Your task to perform on an android device: find which apps use the phone's location Image 0: 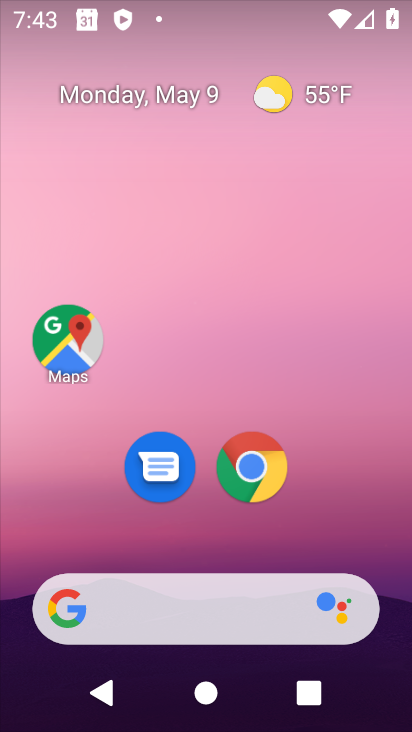
Step 0: drag from (388, 549) to (389, 6)
Your task to perform on an android device: find which apps use the phone's location Image 1: 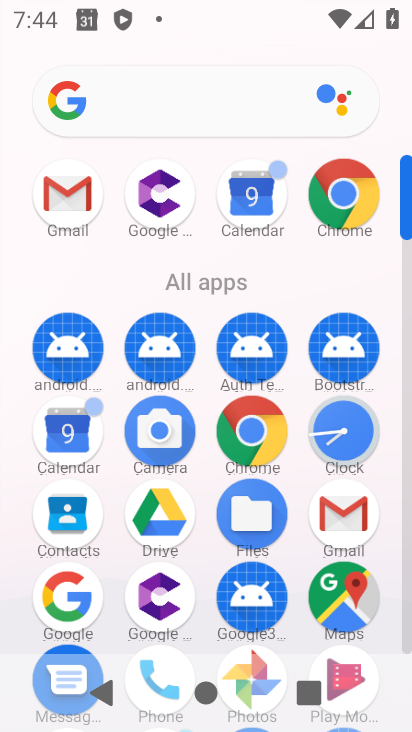
Step 1: click (405, 501)
Your task to perform on an android device: find which apps use the phone's location Image 2: 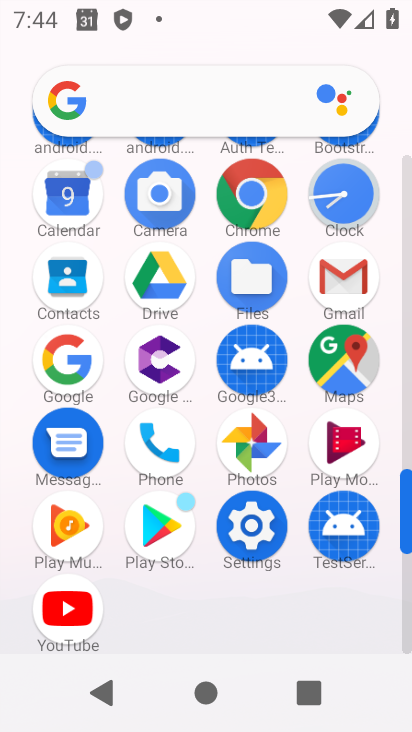
Step 2: click (254, 530)
Your task to perform on an android device: find which apps use the phone's location Image 3: 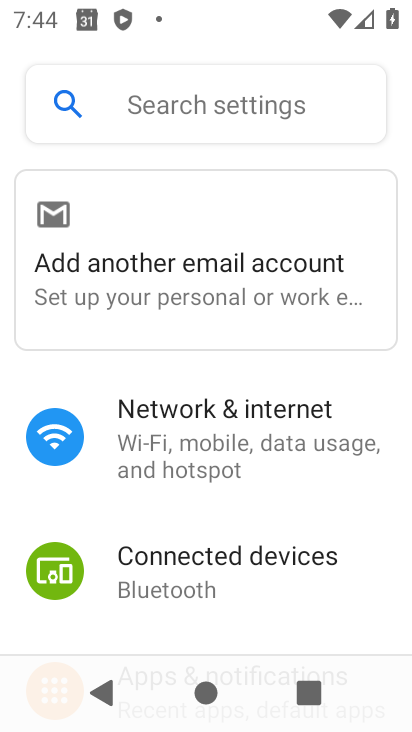
Step 3: drag from (358, 586) to (360, 74)
Your task to perform on an android device: find which apps use the phone's location Image 4: 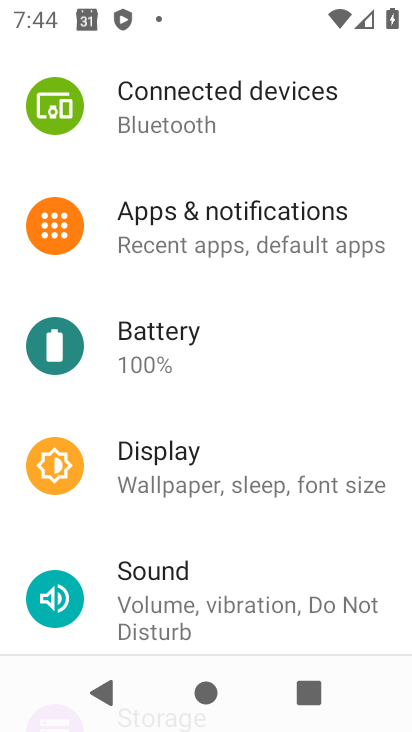
Step 4: drag from (310, 558) to (305, 209)
Your task to perform on an android device: find which apps use the phone's location Image 5: 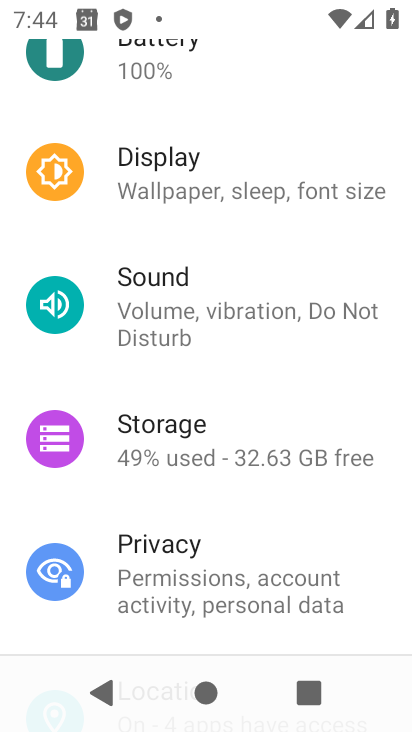
Step 5: drag from (333, 581) to (329, 210)
Your task to perform on an android device: find which apps use the phone's location Image 6: 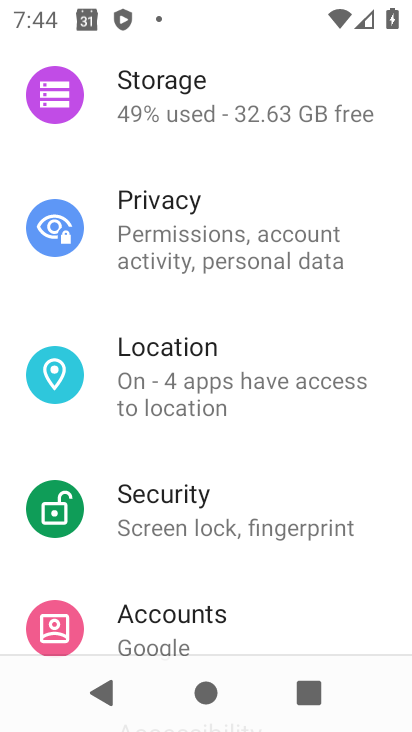
Step 6: click (194, 370)
Your task to perform on an android device: find which apps use the phone's location Image 7: 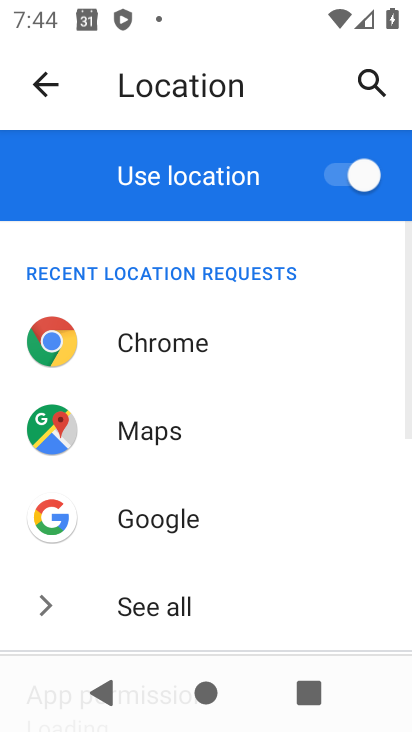
Step 7: drag from (279, 599) to (287, 303)
Your task to perform on an android device: find which apps use the phone's location Image 8: 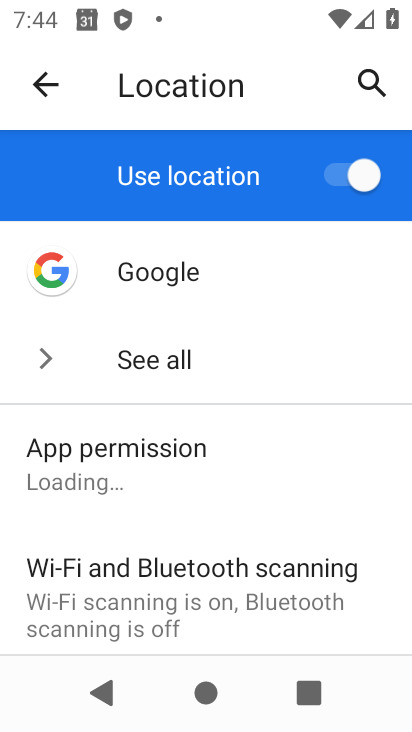
Step 8: click (132, 456)
Your task to perform on an android device: find which apps use the phone's location Image 9: 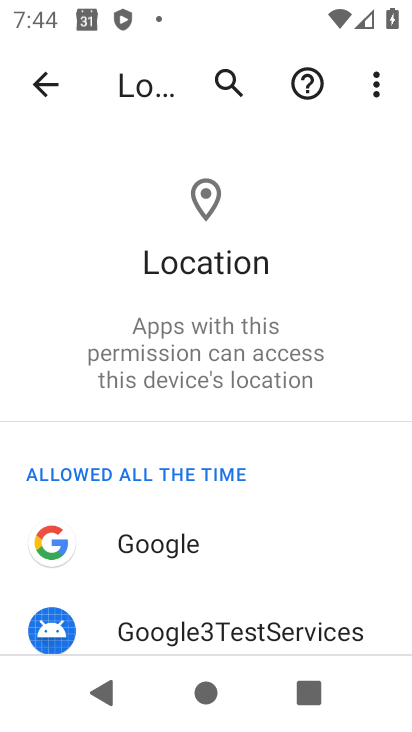
Step 9: task complete